Your task to perform on an android device: Clear the shopping cart on target.com. Add "usb-c to usb-a" to the cart on target.com Image 0: 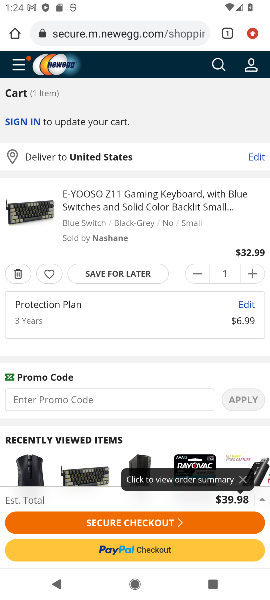
Step 0: click (111, 31)
Your task to perform on an android device: Clear the shopping cart on target.com. Add "usb-c to usb-a" to the cart on target.com Image 1: 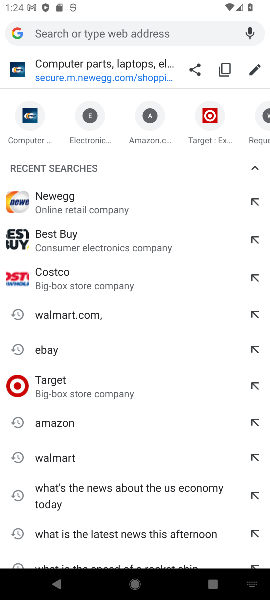
Step 1: type "target.com"
Your task to perform on an android device: Clear the shopping cart on target.com. Add "usb-c to usb-a" to the cart on target.com Image 2: 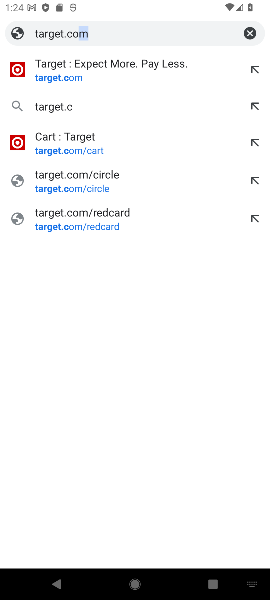
Step 2: press enter
Your task to perform on an android device: Clear the shopping cart on target.com. Add "usb-c to usb-a" to the cart on target.com Image 3: 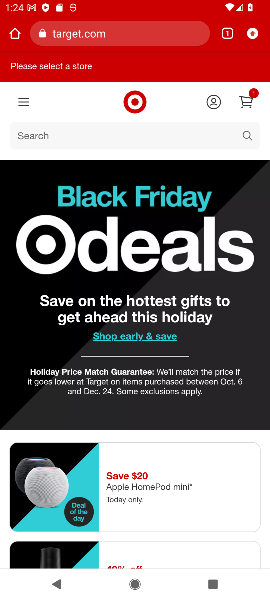
Step 3: click (61, 133)
Your task to perform on an android device: Clear the shopping cart on target.com. Add "usb-c to usb-a" to the cart on target.com Image 4: 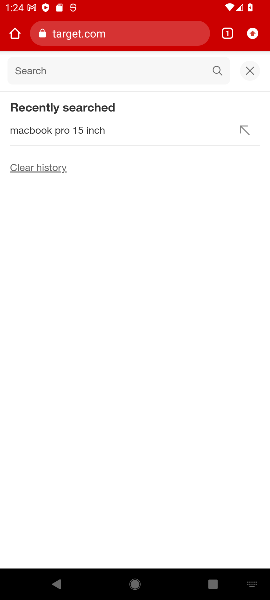
Step 4: press back button
Your task to perform on an android device: Clear the shopping cart on target.com. Add "usb-c to usb-a" to the cart on target.com Image 5: 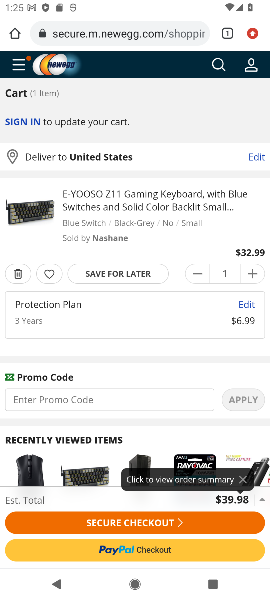
Step 5: click (98, 39)
Your task to perform on an android device: Clear the shopping cart on target.com. Add "usb-c to usb-a" to the cart on target.com Image 6: 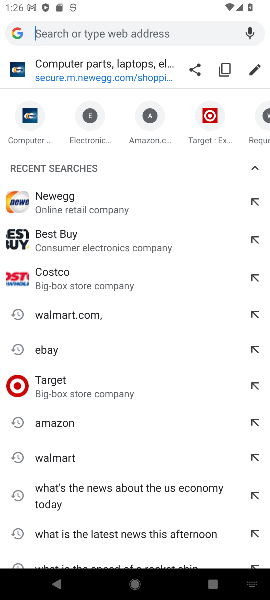
Step 6: type "target.com."
Your task to perform on an android device: Clear the shopping cart on target.com. Add "usb-c to usb-a" to the cart on target.com Image 7: 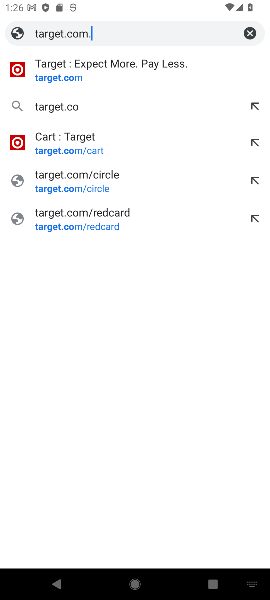
Step 7: press enter
Your task to perform on an android device: Clear the shopping cart on target.com. Add "usb-c to usb-a" to the cart on target.com Image 8: 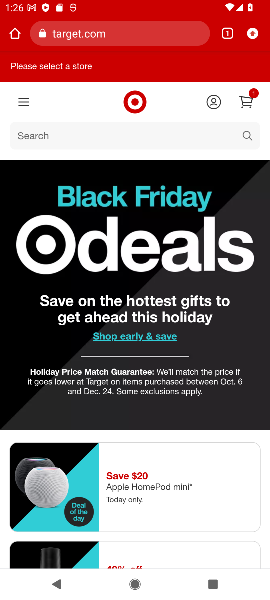
Step 8: click (21, 135)
Your task to perform on an android device: Clear the shopping cart on target.com. Add "usb-c to usb-a" to the cart on target.com Image 9: 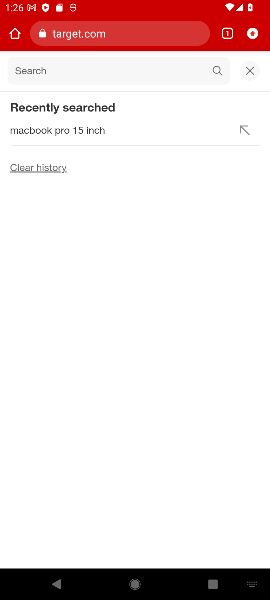
Step 9: press back button
Your task to perform on an android device: Clear the shopping cart on target.com. Add "usb-c to usb-a" to the cart on target.com Image 10: 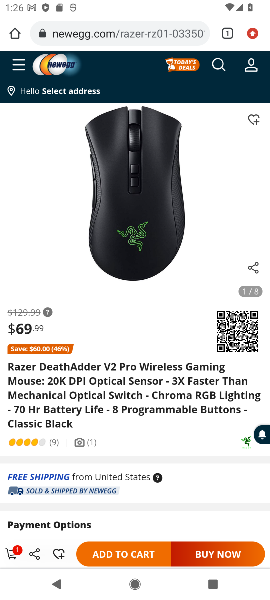
Step 10: click (123, 29)
Your task to perform on an android device: Clear the shopping cart on target.com. Add "usb-c to usb-a" to the cart on target.com Image 11: 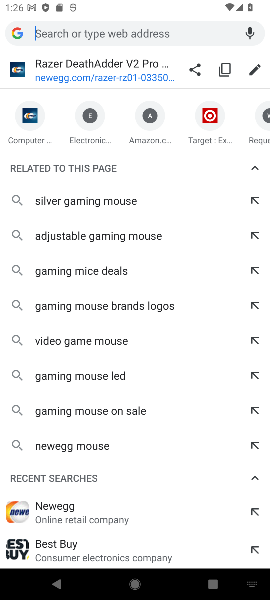
Step 11: type "target.com."
Your task to perform on an android device: Clear the shopping cart on target.com. Add "usb-c to usb-a" to the cart on target.com Image 12: 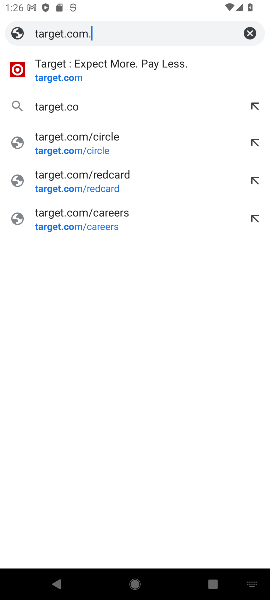
Step 12: press enter
Your task to perform on an android device: Clear the shopping cart on target.com. Add "usb-c to usb-a" to the cart on target.com Image 13: 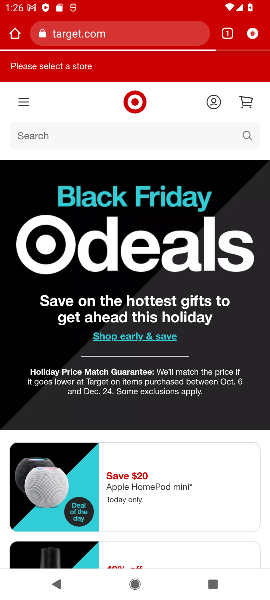
Step 13: click (95, 130)
Your task to perform on an android device: Clear the shopping cart on target.com. Add "usb-c to usb-a" to the cart on target.com Image 14: 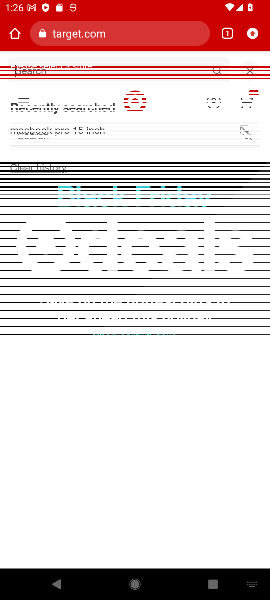
Step 14: click (252, 73)
Your task to perform on an android device: Clear the shopping cart on target.com. Add "usb-c to usb-a" to the cart on target.com Image 15: 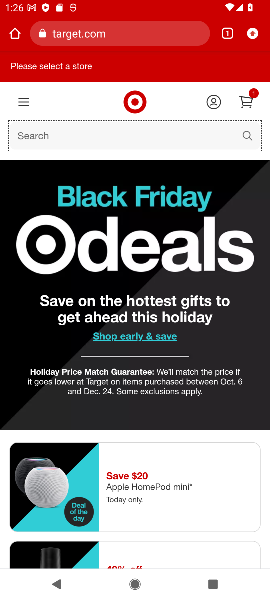
Step 15: click (241, 97)
Your task to perform on an android device: Clear the shopping cart on target.com. Add "usb-c to usb-a" to the cart on target.com Image 16: 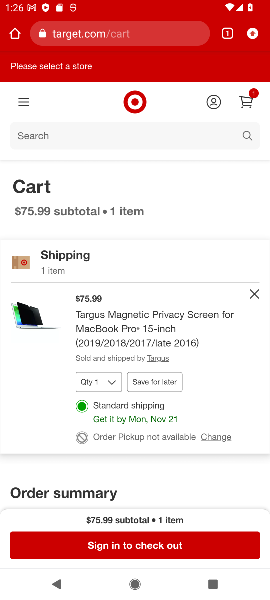
Step 16: click (255, 293)
Your task to perform on an android device: Clear the shopping cart on target.com. Add "usb-c to usb-a" to the cart on target.com Image 17: 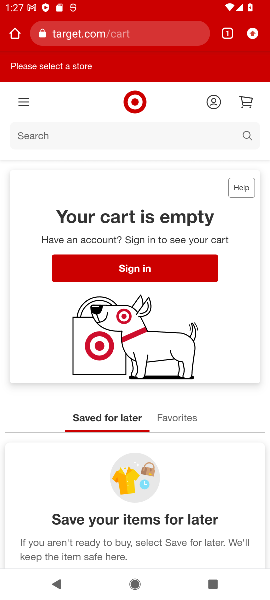
Step 17: click (72, 133)
Your task to perform on an android device: Clear the shopping cart on target.com. Add "usb-c to usb-a" to the cart on target.com Image 18: 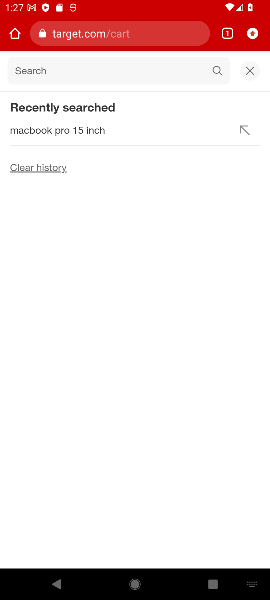
Step 18: type "usb-c to usb-a"
Your task to perform on an android device: Clear the shopping cart on target.com. Add "usb-c to usb-a" to the cart on target.com Image 19: 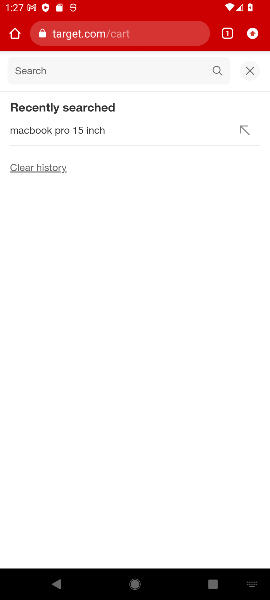
Step 19: press enter
Your task to perform on an android device: Clear the shopping cart on target.com. Add "usb-c to usb-a" to the cart on target.com Image 20: 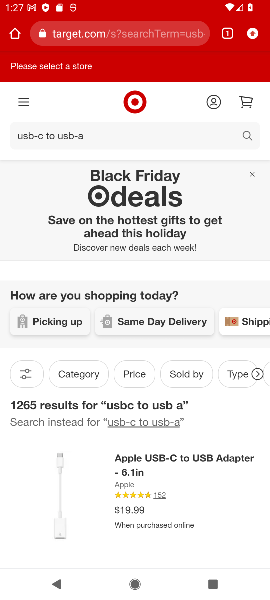
Step 20: drag from (148, 476) to (106, 325)
Your task to perform on an android device: Clear the shopping cart on target.com. Add "usb-c to usb-a" to the cart on target.com Image 21: 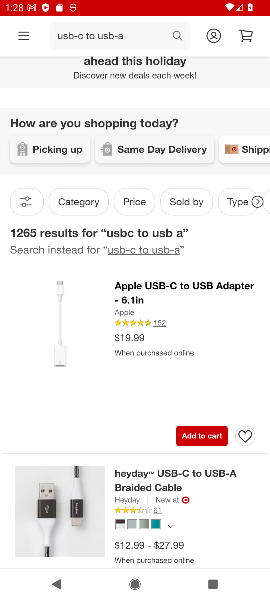
Step 21: click (216, 440)
Your task to perform on an android device: Clear the shopping cart on target.com. Add "usb-c to usb-a" to the cart on target.com Image 22: 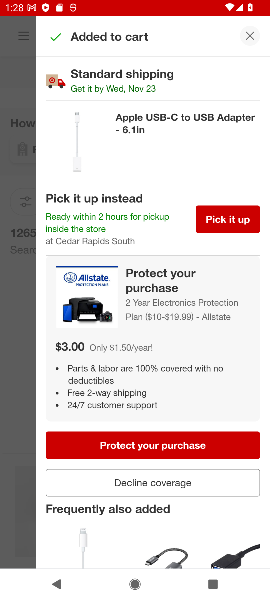
Step 22: task complete